Your task to perform on an android device: turn off sleep mode Image 0: 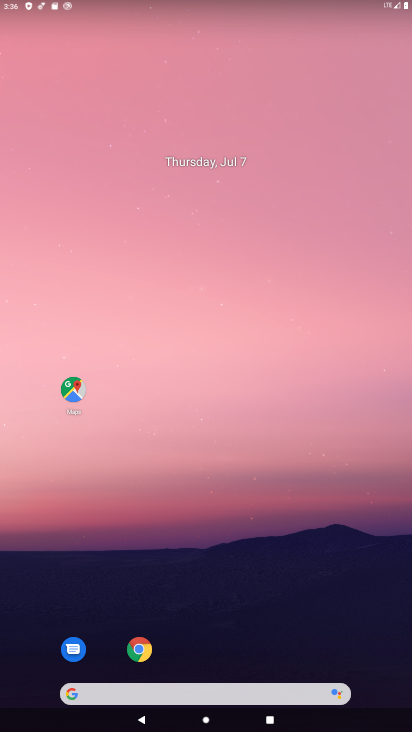
Step 0: drag from (220, 512) to (204, 0)
Your task to perform on an android device: turn off sleep mode Image 1: 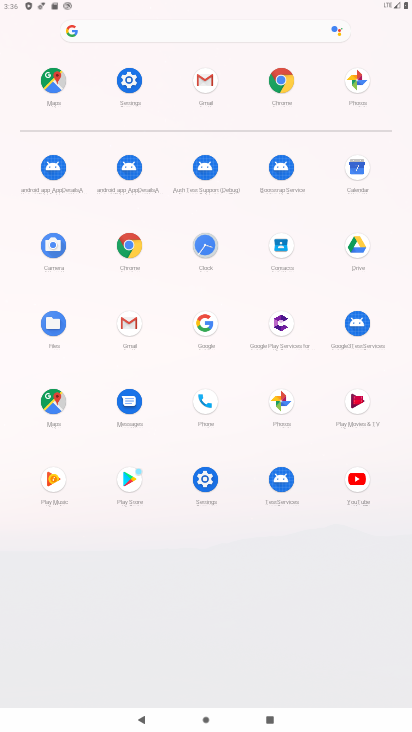
Step 1: drag from (212, 448) to (213, 402)
Your task to perform on an android device: turn off sleep mode Image 2: 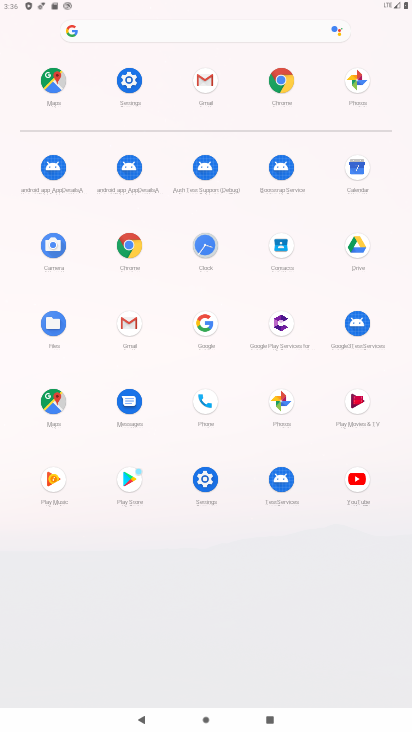
Step 2: click (138, 85)
Your task to perform on an android device: turn off sleep mode Image 3: 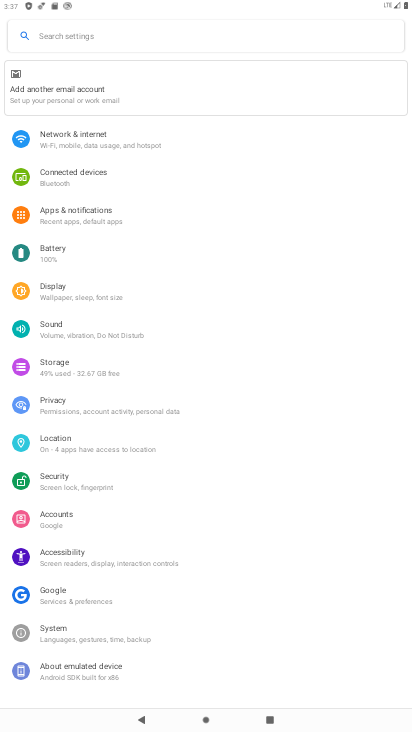
Step 3: click (118, 291)
Your task to perform on an android device: turn off sleep mode Image 4: 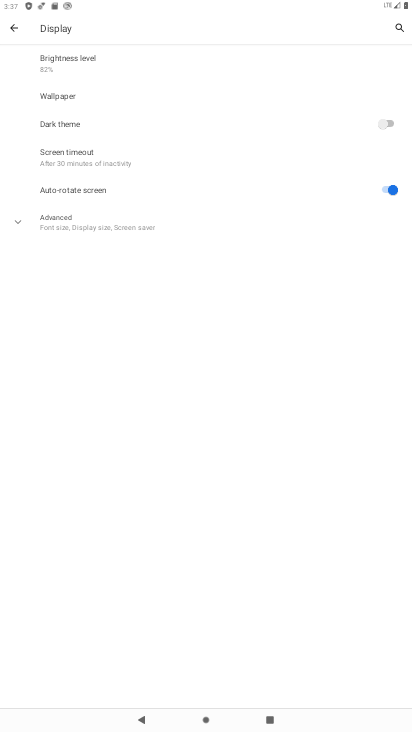
Step 4: click (95, 222)
Your task to perform on an android device: turn off sleep mode Image 5: 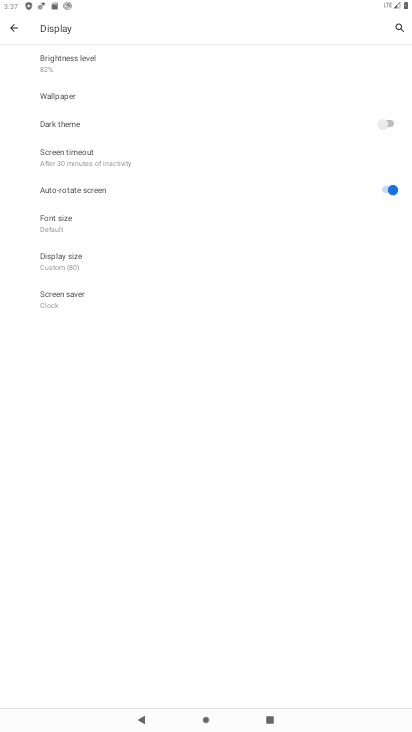
Step 5: task complete